Your task to perform on an android device: What's the weather today? Image 0: 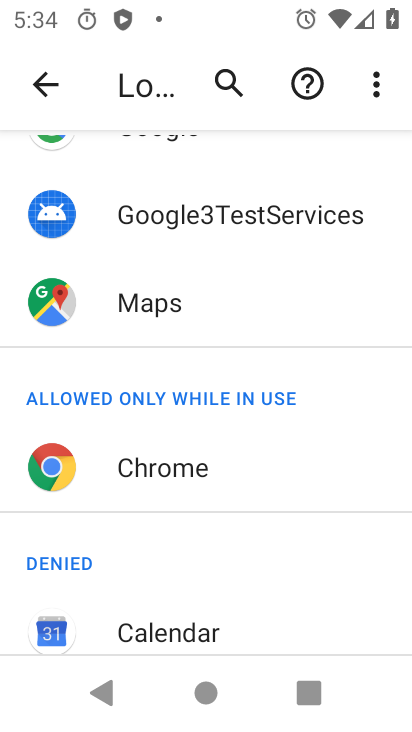
Step 0: press home button
Your task to perform on an android device: What's the weather today? Image 1: 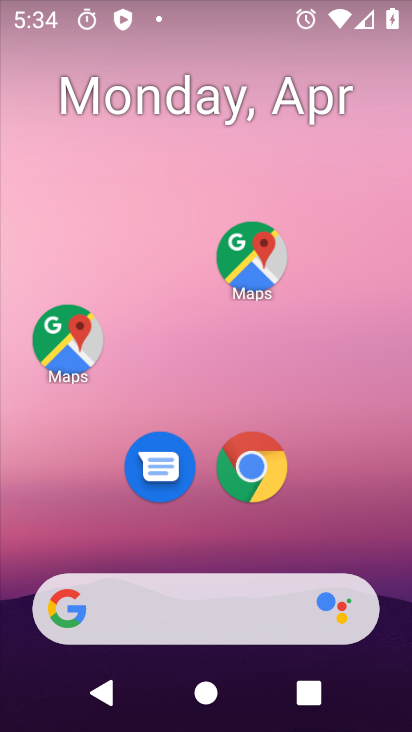
Step 1: drag from (314, 605) to (323, 52)
Your task to perform on an android device: What's the weather today? Image 2: 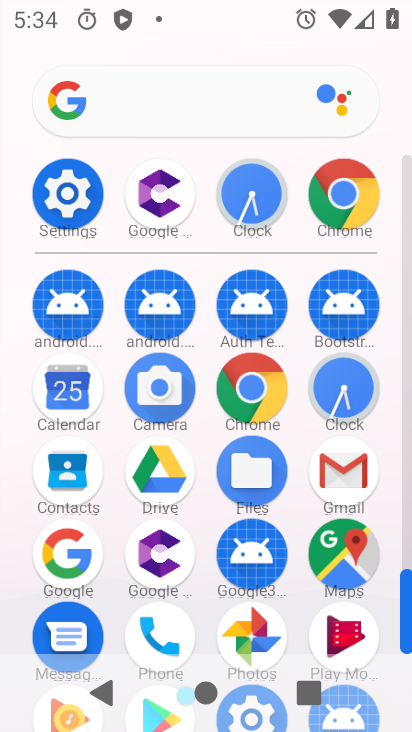
Step 2: click (243, 387)
Your task to perform on an android device: What's the weather today? Image 3: 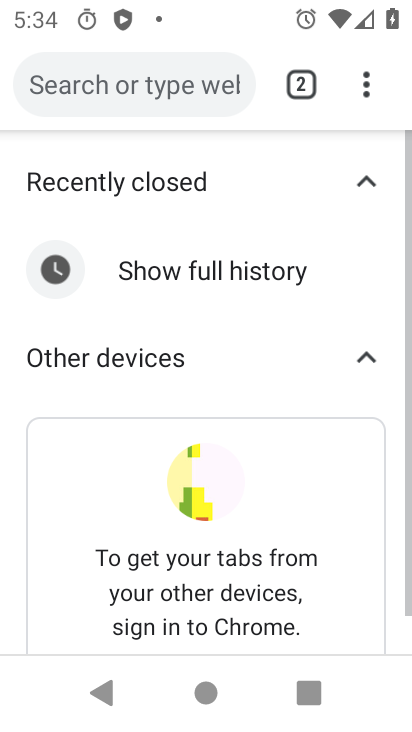
Step 3: click (210, 102)
Your task to perform on an android device: What's the weather today? Image 4: 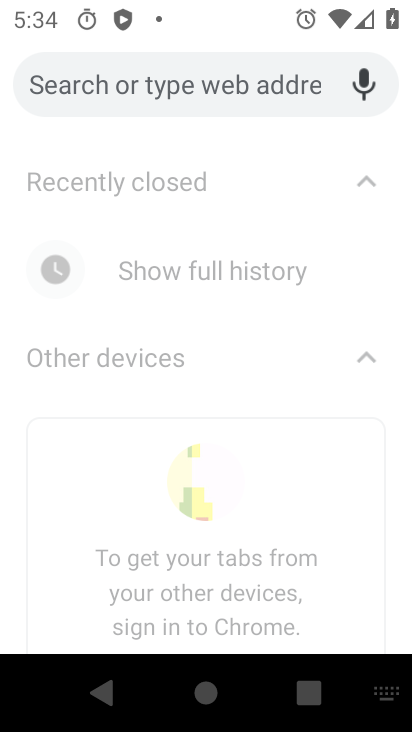
Step 4: type "weather today"
Your task to perform on an android device: What's the weather today? Image 5: 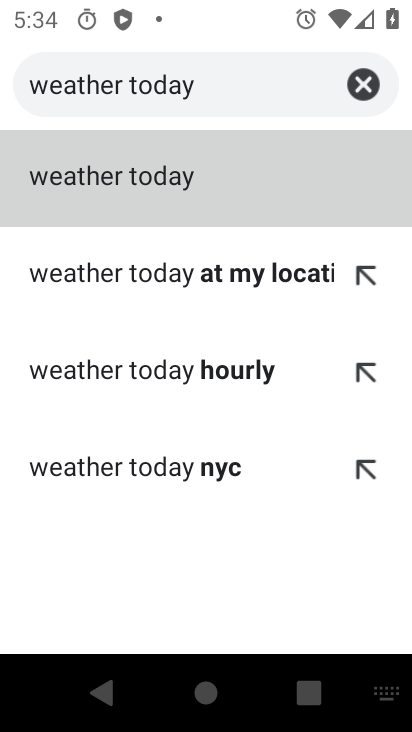
Step 5: click (268, 203)
Your task to perform on an android device: What's the weather today? Image 6: 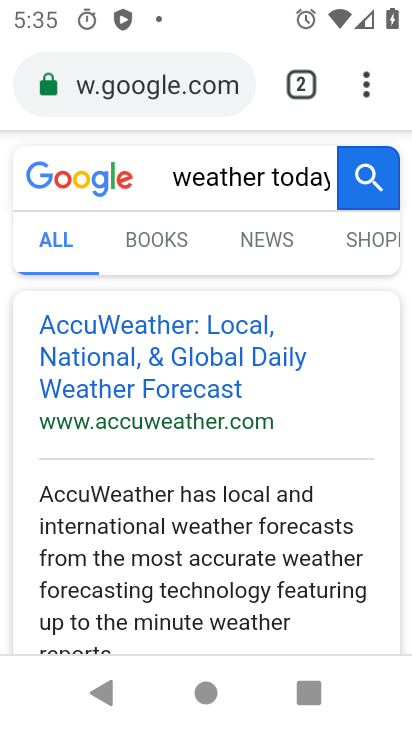
Step 6: task complete